Your task to perform on an android device: Turn on the flashlight Image 0: 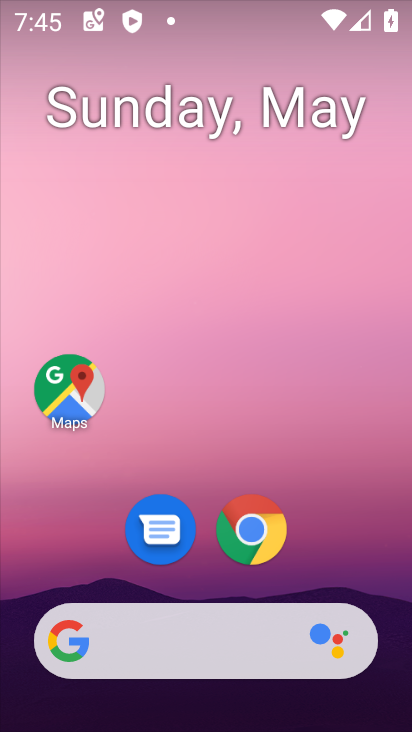
Step 0: drag from (192, 6) to (215, 647)
Your task to perform on an android device: Turn on the flashlight Image 1: 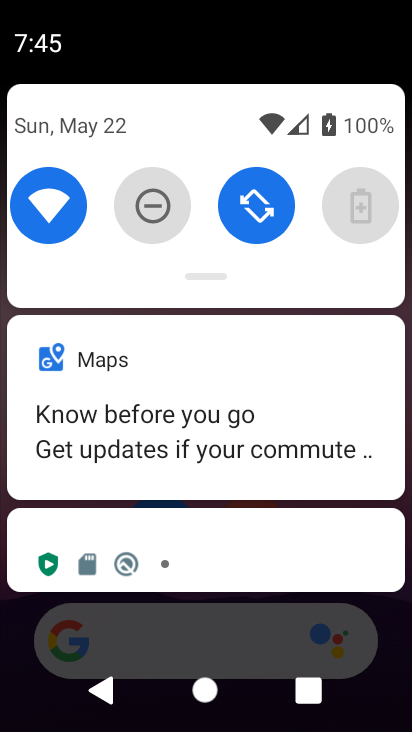
Step 1: task complete